Your task to perform on an android device: snooze an email in the gmail app Image 0: 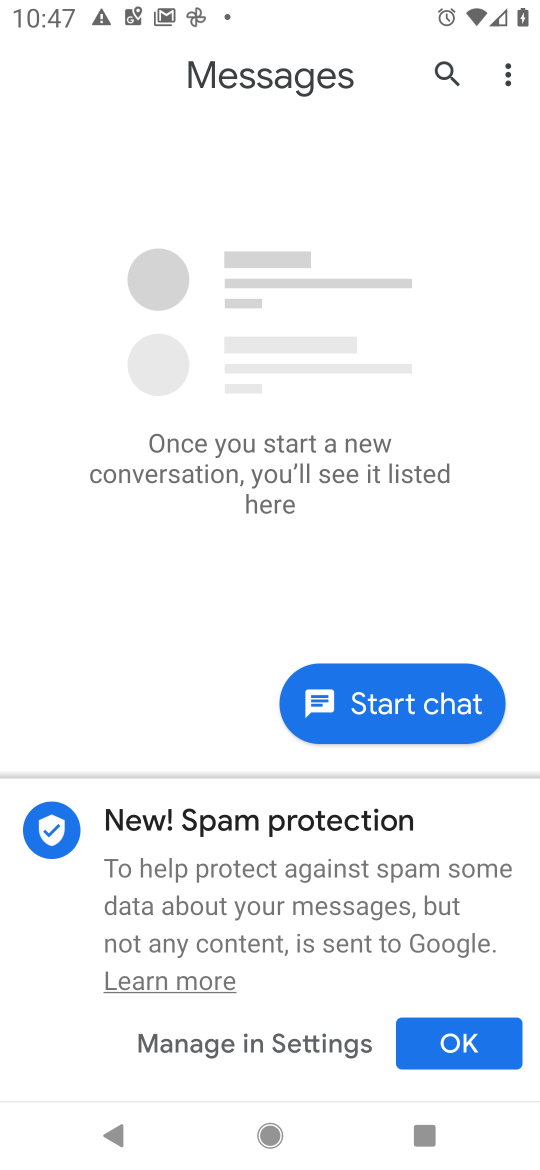
Step 0: press home button
Your task to perform on an android device: snooze an email in the gmail app Image 1: 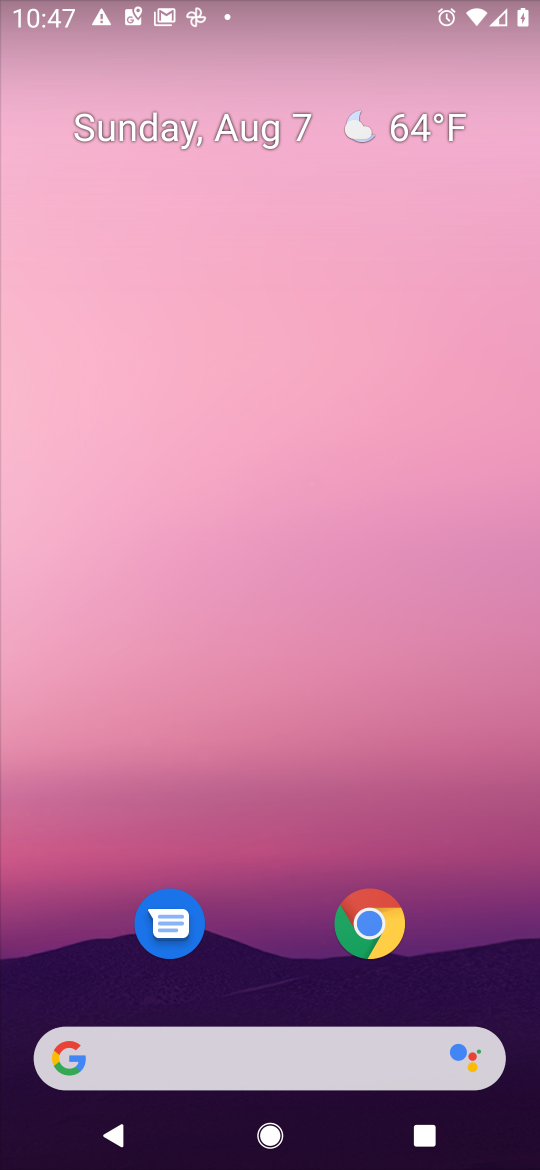
Step 1: drag from (479, 977) to (251, 134)
Your task to perform on an android device: snooze an email in the gmail app Image 2: 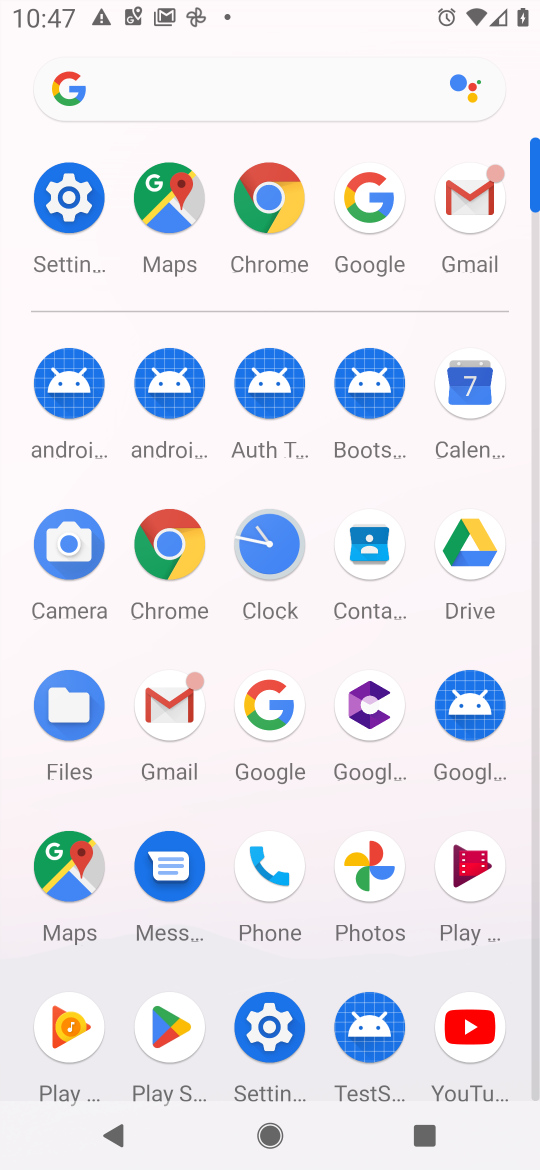
Step 2: click (186, 714)
Your task to perform on an android device: snooze an email in the gmail app Image 3: 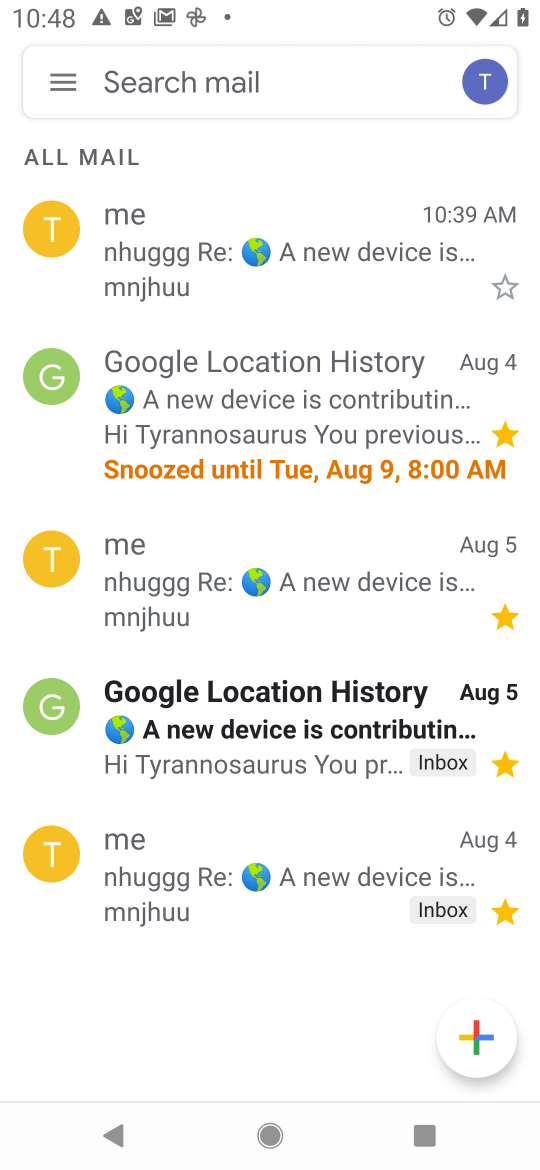
Step 3: click (386, 413)
Your task to perform on an android device: snooze an email in the gmail app Image 4: 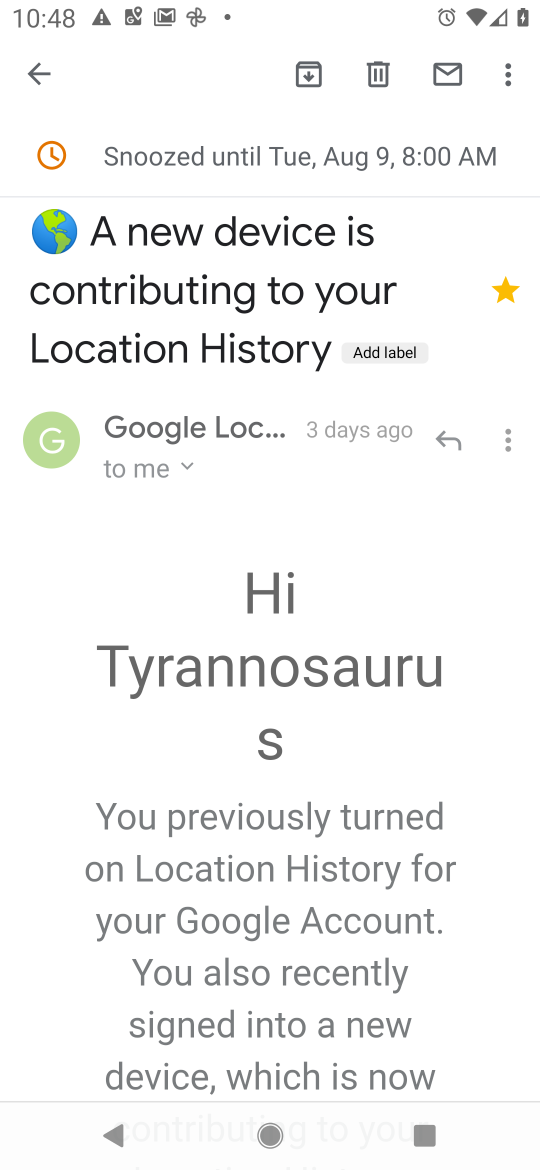
Step 4: click (515, 77)
Your task to perform on an android device: snooze an email in the gmail app Image 5: 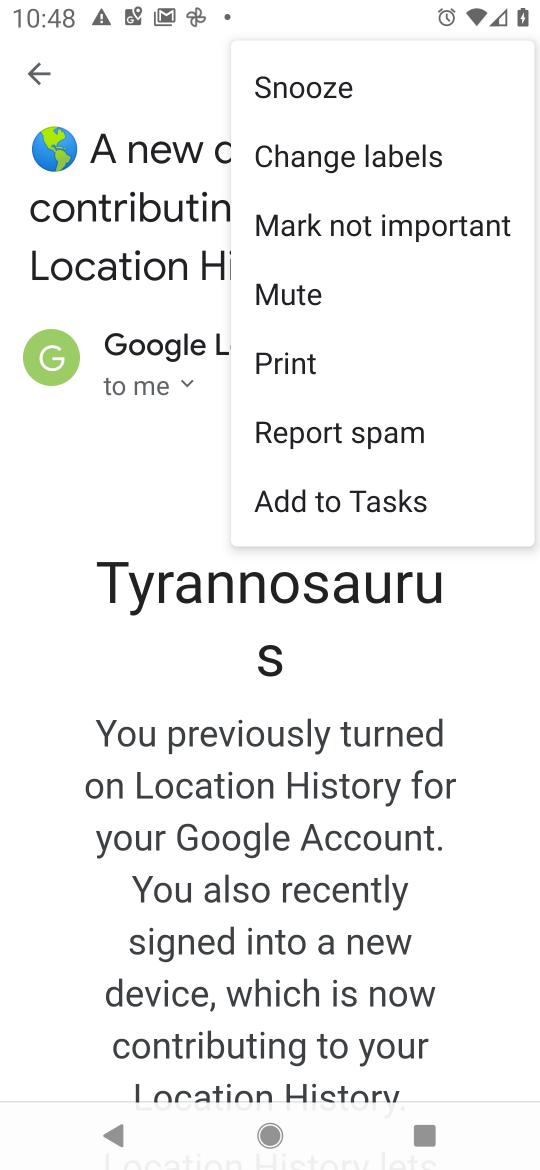
Step 5: click (330, 104)
Your task to perform on an android device: snooze an email in the gmail app Image 6: 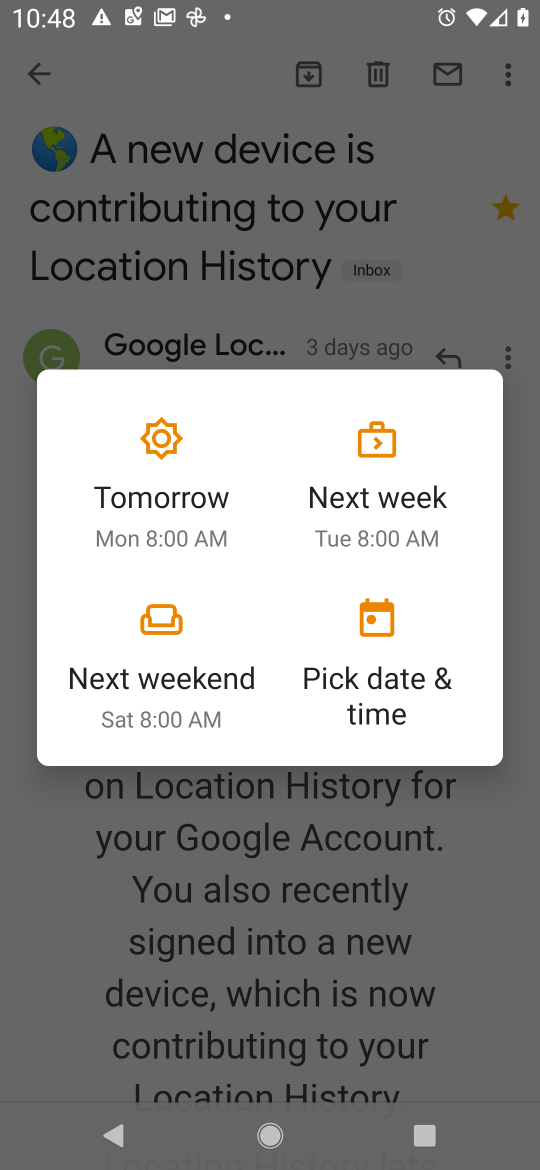
Step 6: click (383, 498)
Your task to perform on an android device: snooze an email in the gmail app Image 7: 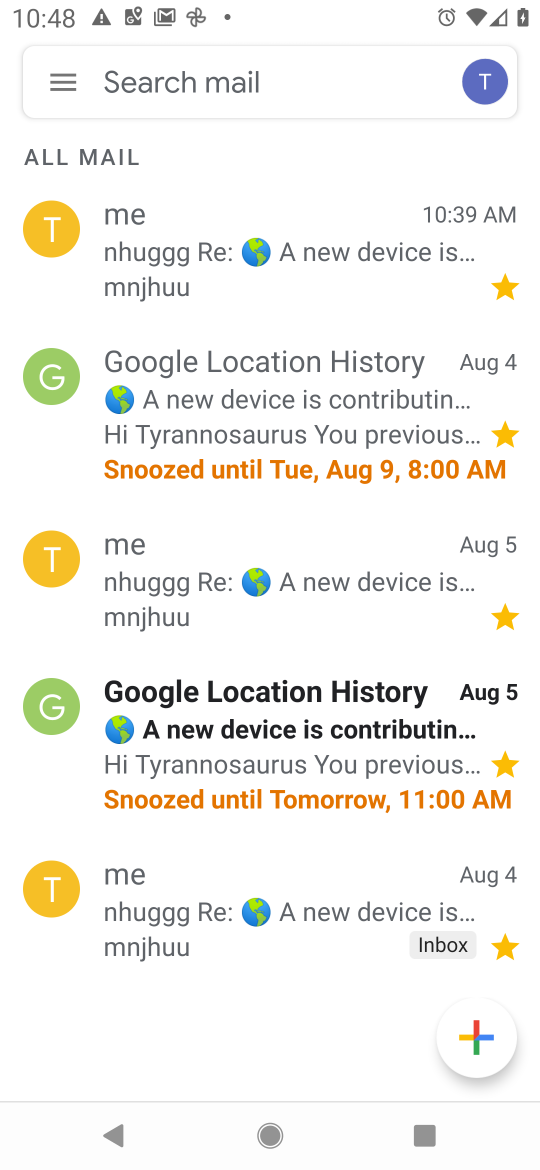
Step 7: task complete